Your task to perform on an android device: show emergency info Image 0: 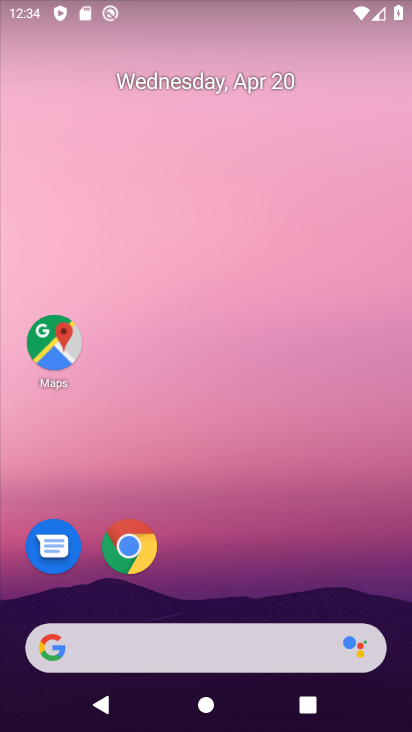
Step 0: drag from (216, 726) to (208, 181)
Your task to perform on an android device: show emergency info Image 1: 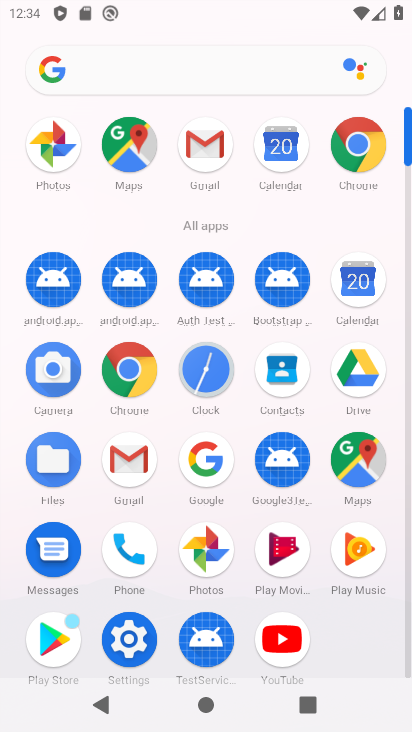
Step 1: click (130, 637)
Your task to perform on an android device: show emergency info Image 2: 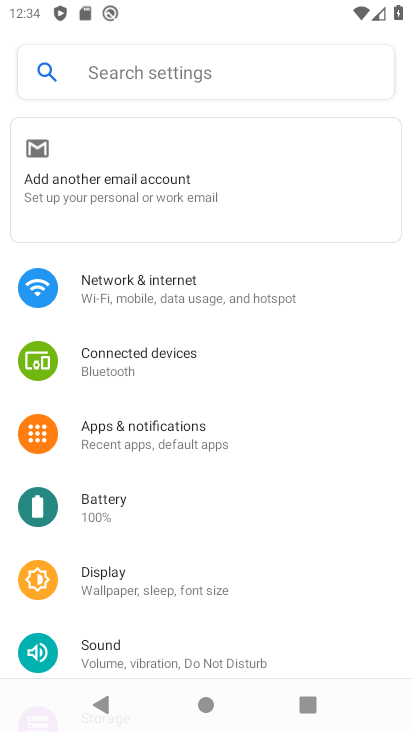
Step 2: drag from (183, 636) to (197, 249)
Your task to perform on an android device: show emergency info Image 3: 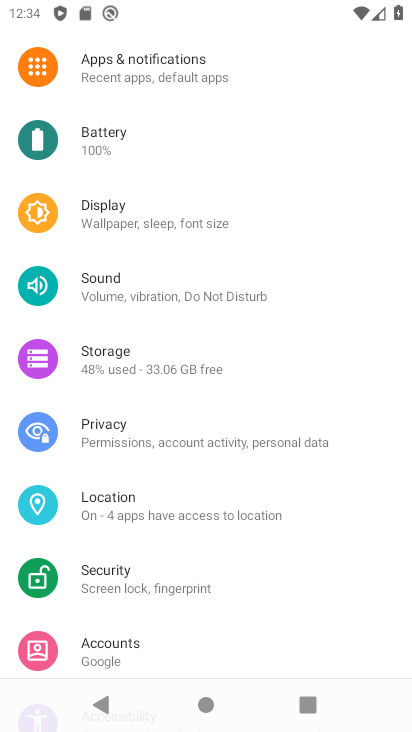
Step 3: drag from (181, 639) to (173, 128)
Your task to perform on an android device: show emergency info Image 4: 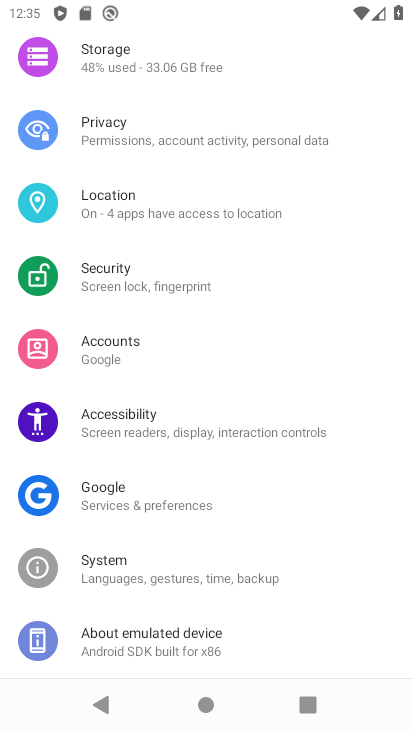
Step 4: click (132, 642)
Your task to perform on an android device: show emergency info Image 5: 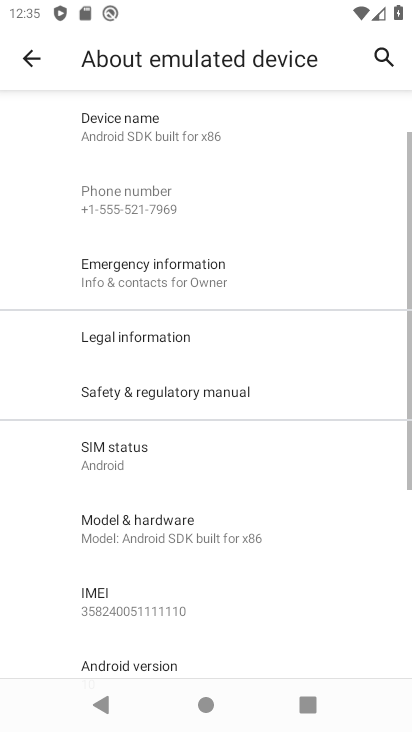
Step 5: click (132, 272)
Your task to perform on an android device: show emergency info Image 6: 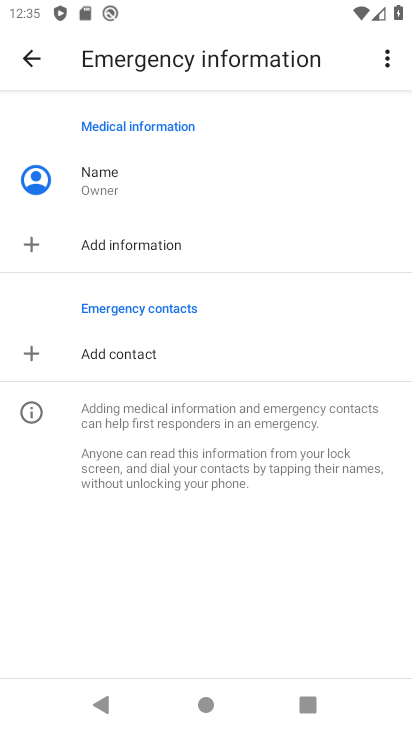
Step 6: task complete